Your task to perform on an android device: Open wifi settings Image 0: 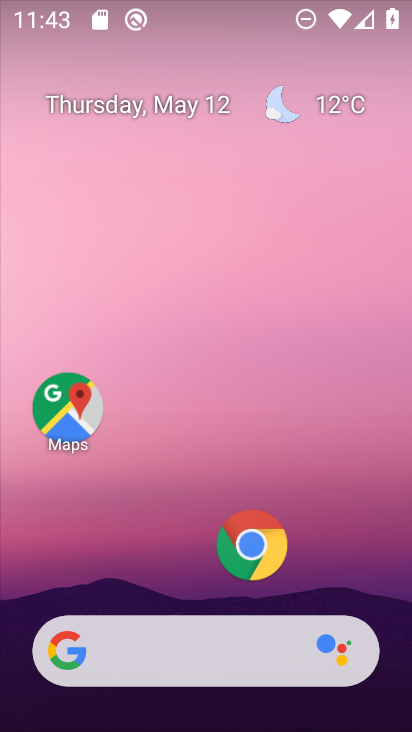
Step 0: drag from (189, 594) to (255, 194)
Your task to perform on an android device: Open wifi settings Image 1: 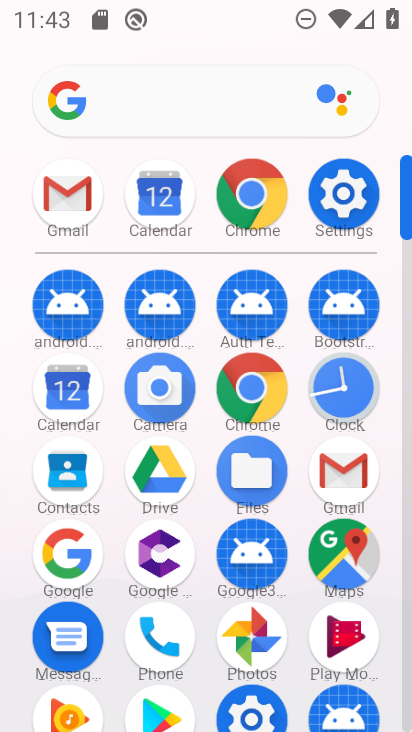
Step 1: click (341, 186)
Your task to perform on an android device: Open wifi settings Image 2: 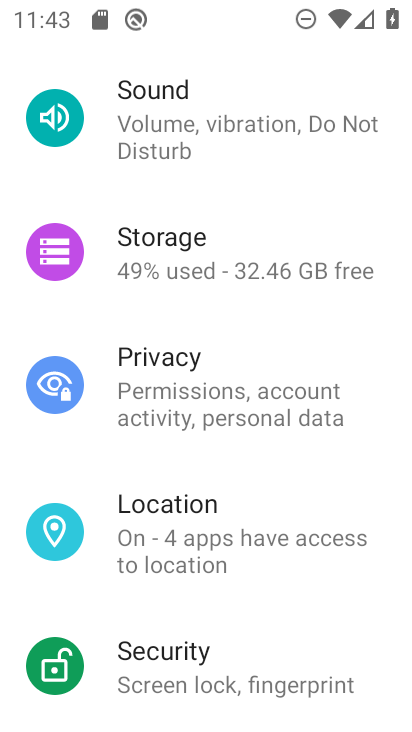
Step 2: drag from (191, 193) to (187, 658)
Your task to perform on an android device: Open wifi settings Image 3: 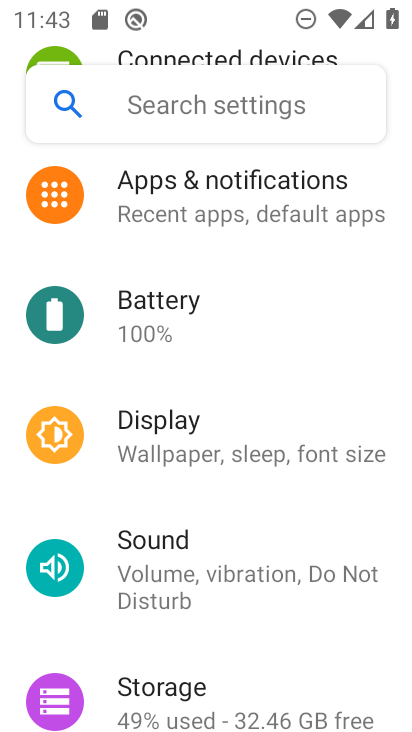
Step 3: drag from (104, 180) to (85, 678)
Your task to perform on an android device: Open wifi settings Image 4: 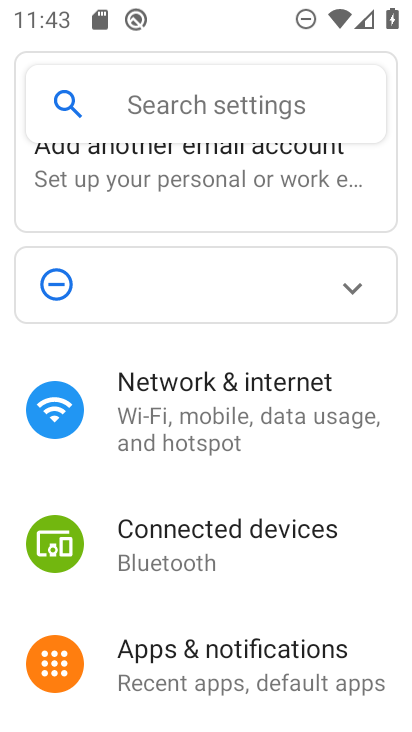
Step 4: click (101, 399)
Your task to perform on an android device: Open wifi settings Image 5: 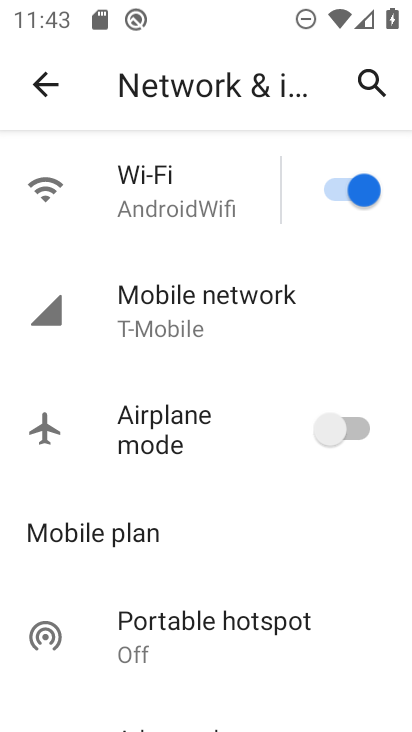
Step 5: click (241, 180)
Your task to perform on an android device: Open wifi settings Image 6: 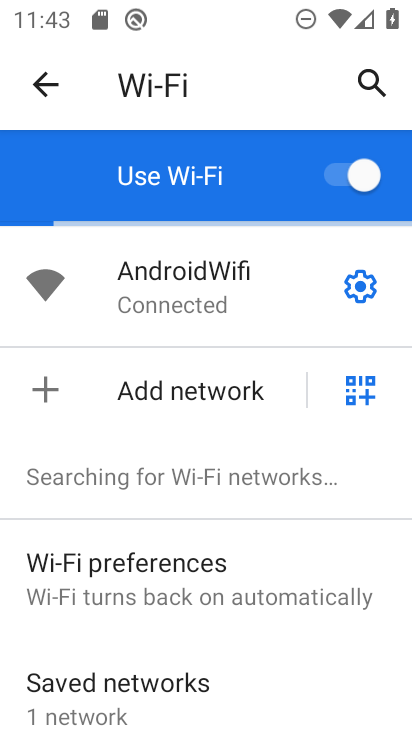
Step 6: task complete